Your task to perform on an android device: Go to ESPN.com Image 0: 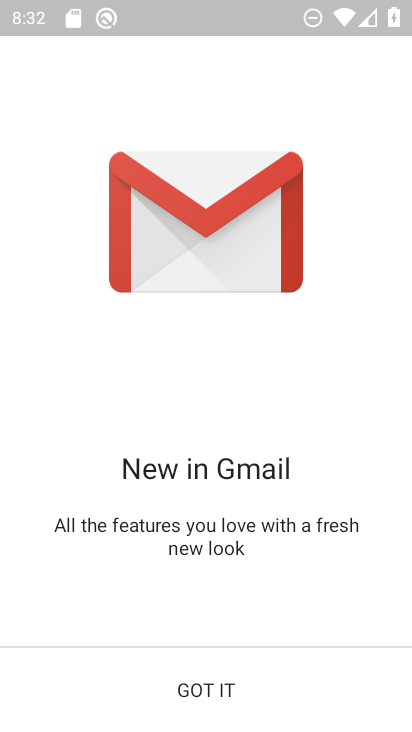
Step 0: press home button
Your task to perform on an android device: Go to ESPN.com Image 1: 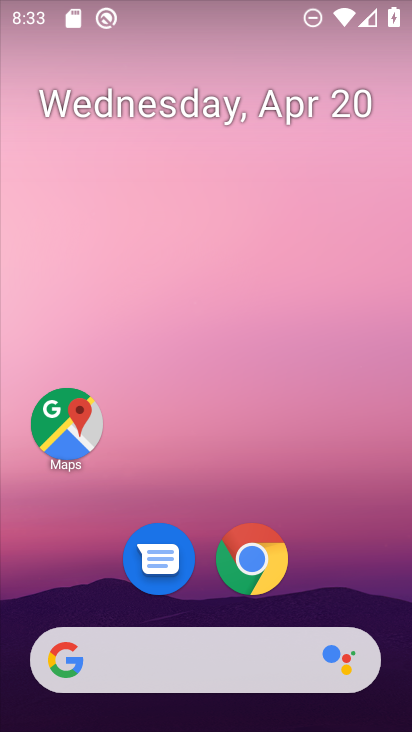
Step 1: click (249, 560)
Your task to perform on an android device: Go to ESPN.com Image 2: 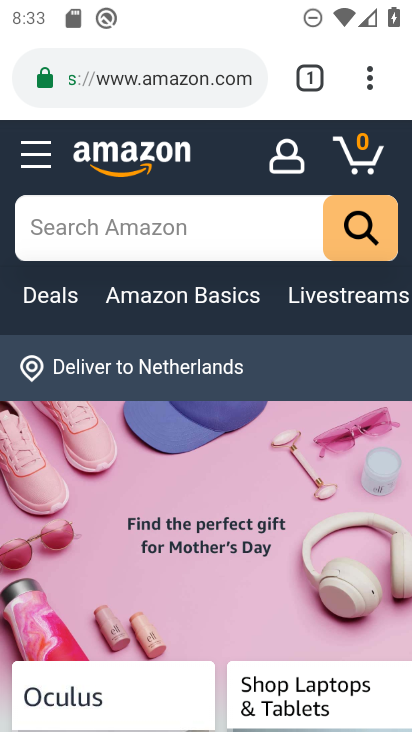
Step 2: click (123, 66)
Your task to perform on an android device: Go to ESPN.com Image 3: 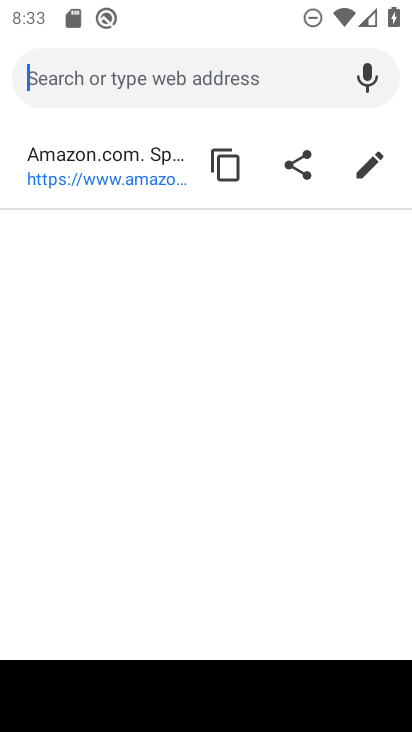
Step 3: type "espn.com"
Your task to perform on an android device: Go to ESPN.com Image 4: 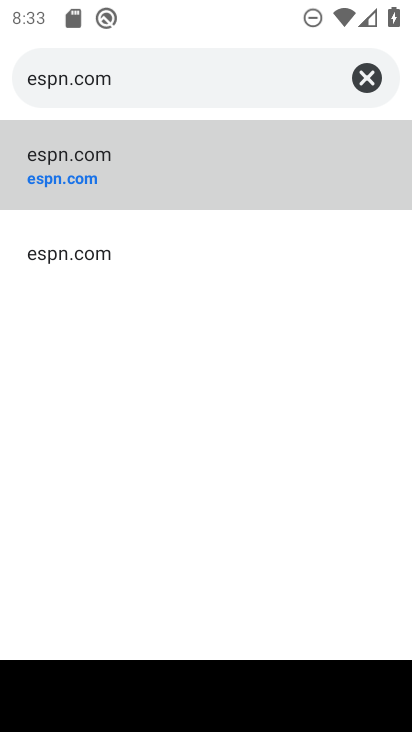
Step 4: click (82, 155)
Your task to perform on an android device: Go to ESPN.com Image 5: 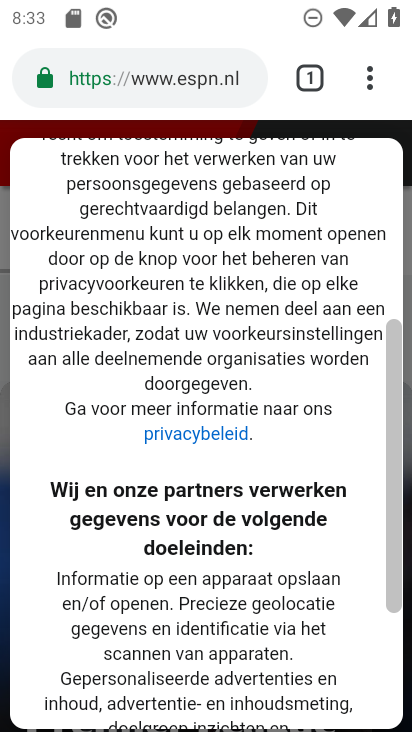
Step 5: task complete